Your task to perform on an android device: Search for flights from Sydney to Helsinki Image 0: 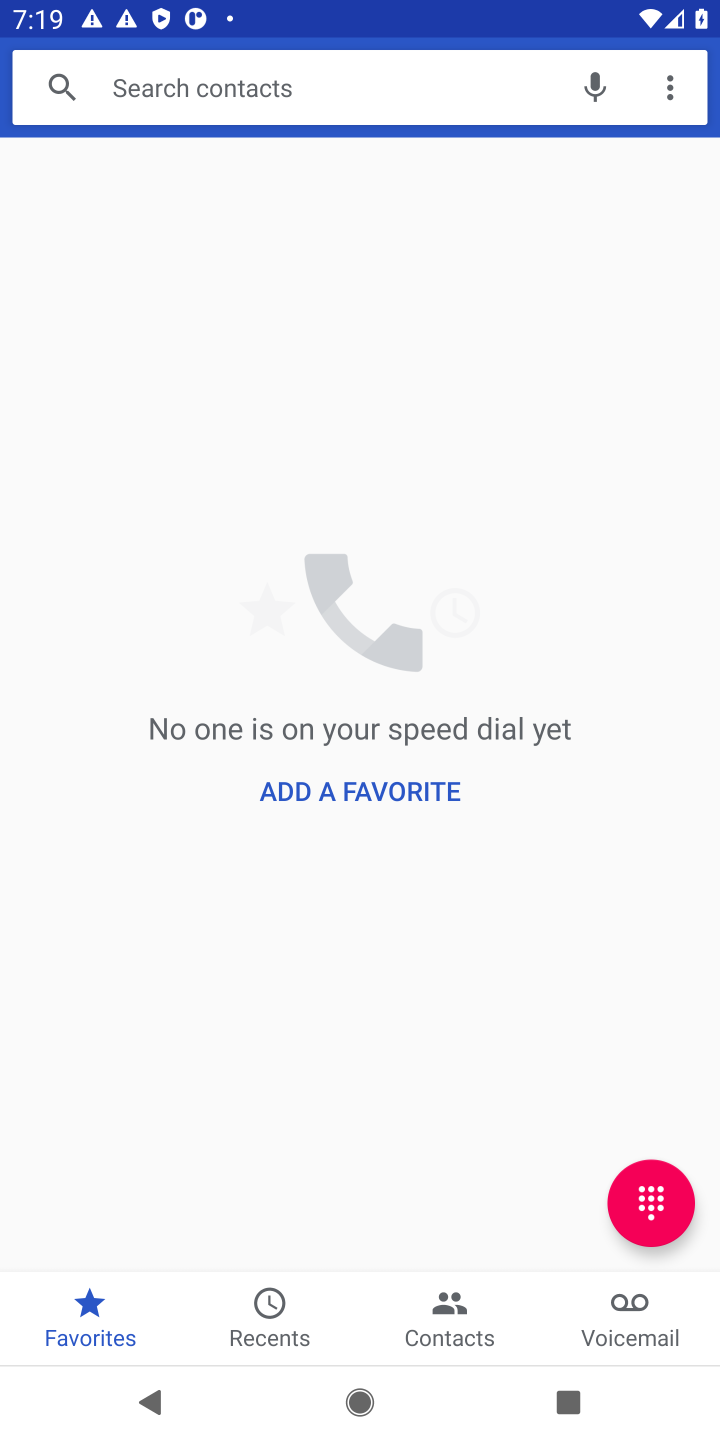
Step 0: press home button
Your task to perform on an android device: Search for flights from Sydney to Helsinki Image 1: 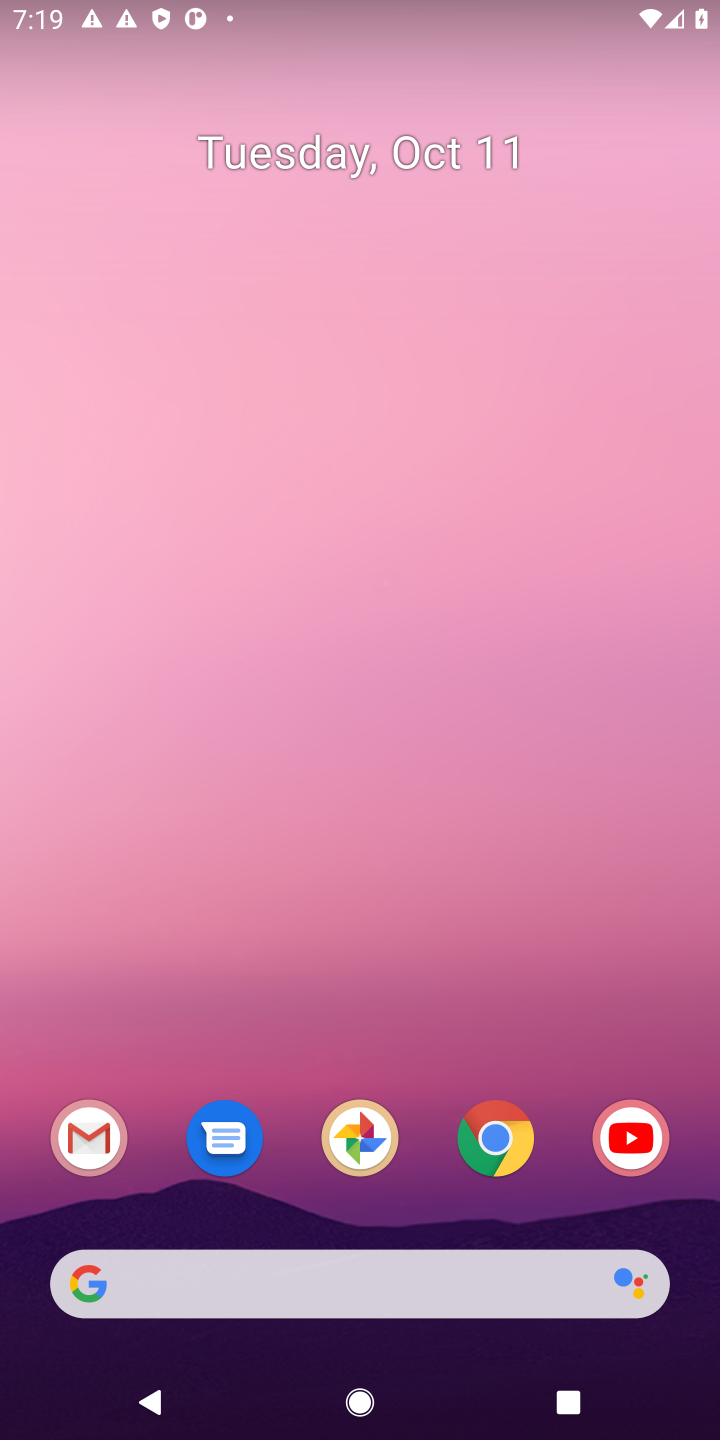
Step 1: click (277, 1285)
Your task to perform on an android device: Search for flights from Sydney to Helsinki Image 2: 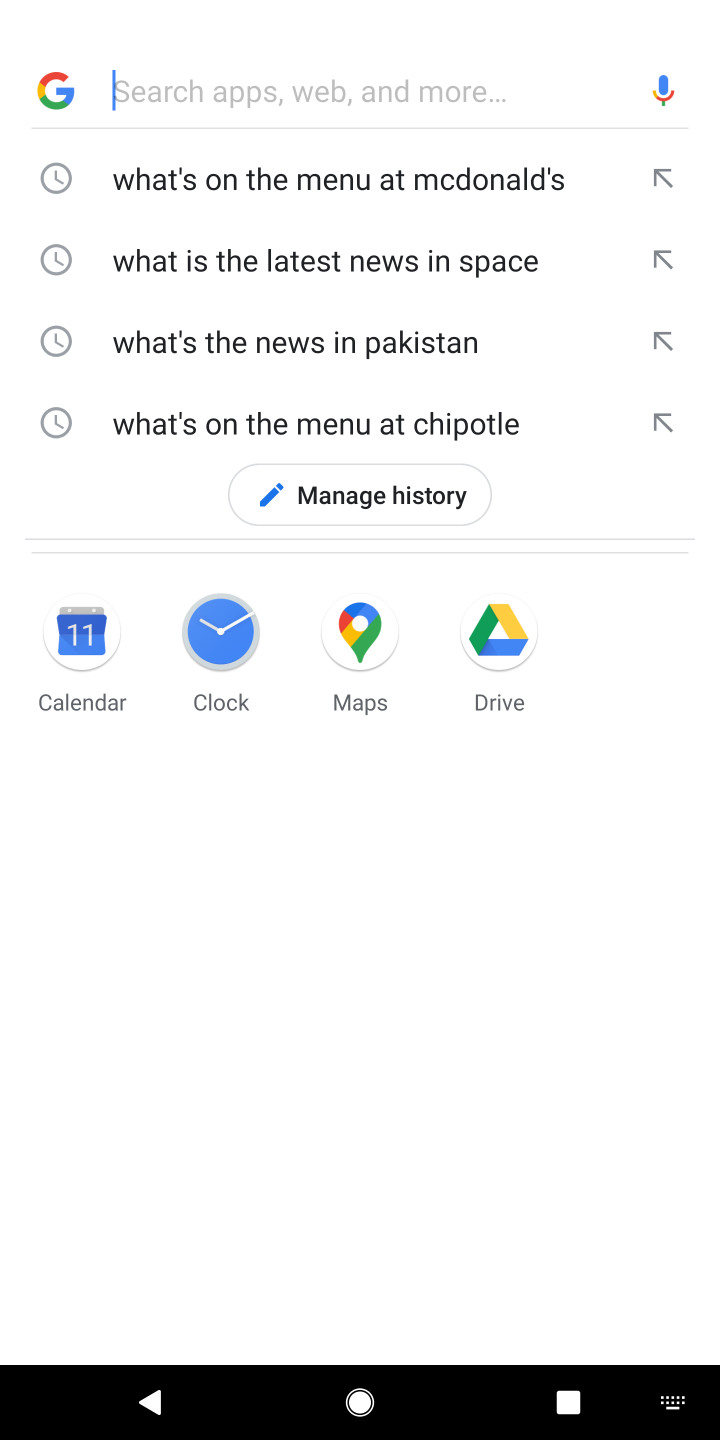
Step 2: type "Search for flights from Sydney to Helsinki"
Your task to perform on an android device: Search for flights from Sydney to Helsinki Image 3: 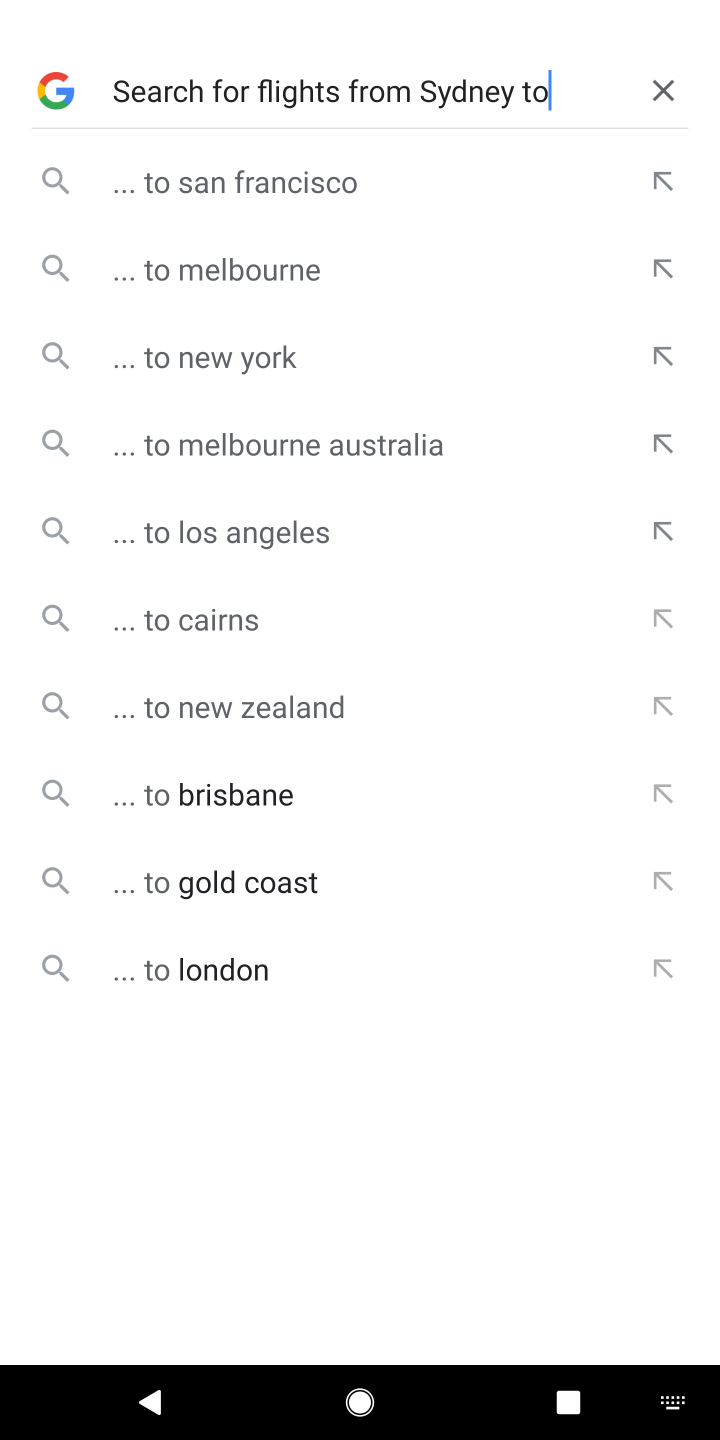
Step 3: type " helsinki"
Your task to perform on an android device: Search for flights from Sydney to Helsinki Image 4: 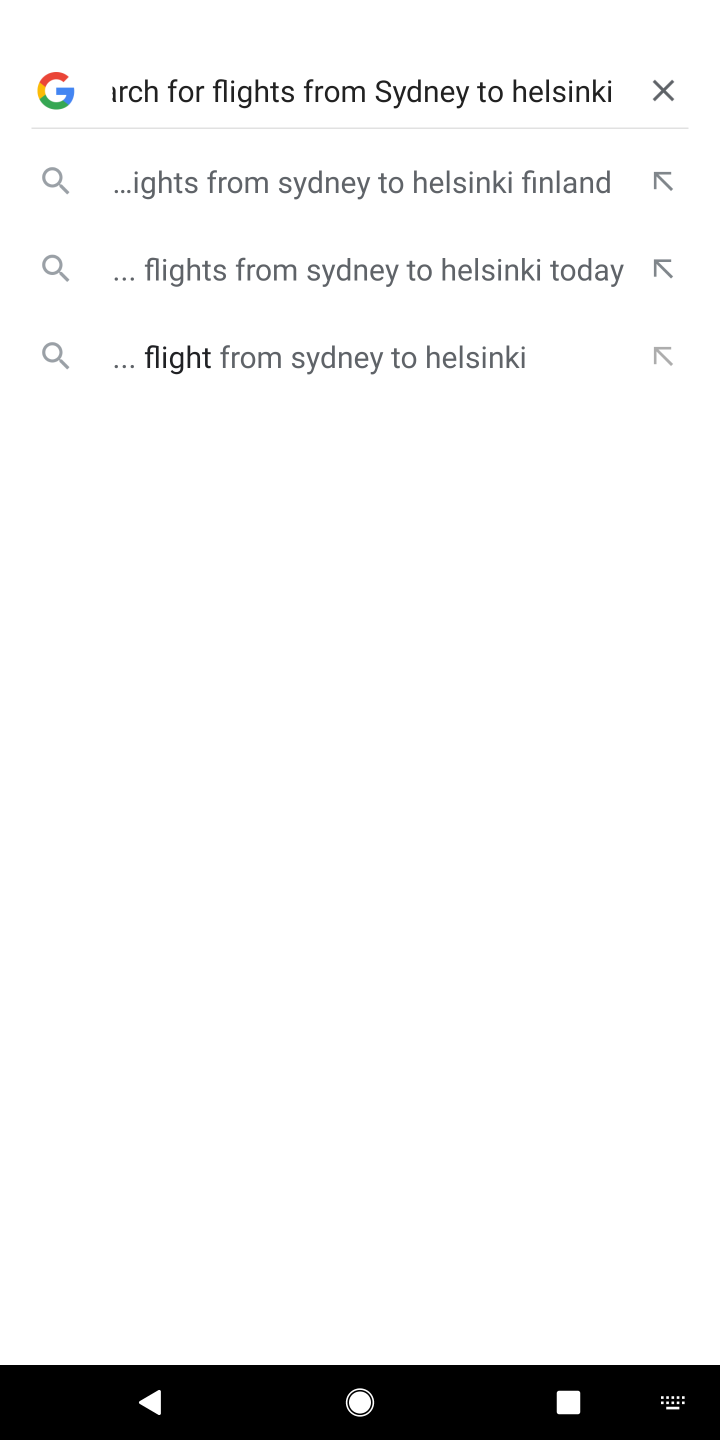
Step 4: click (410, 368)
Your task to perform on an android device: Search for flights from Sydney to Helsinki Image 5: 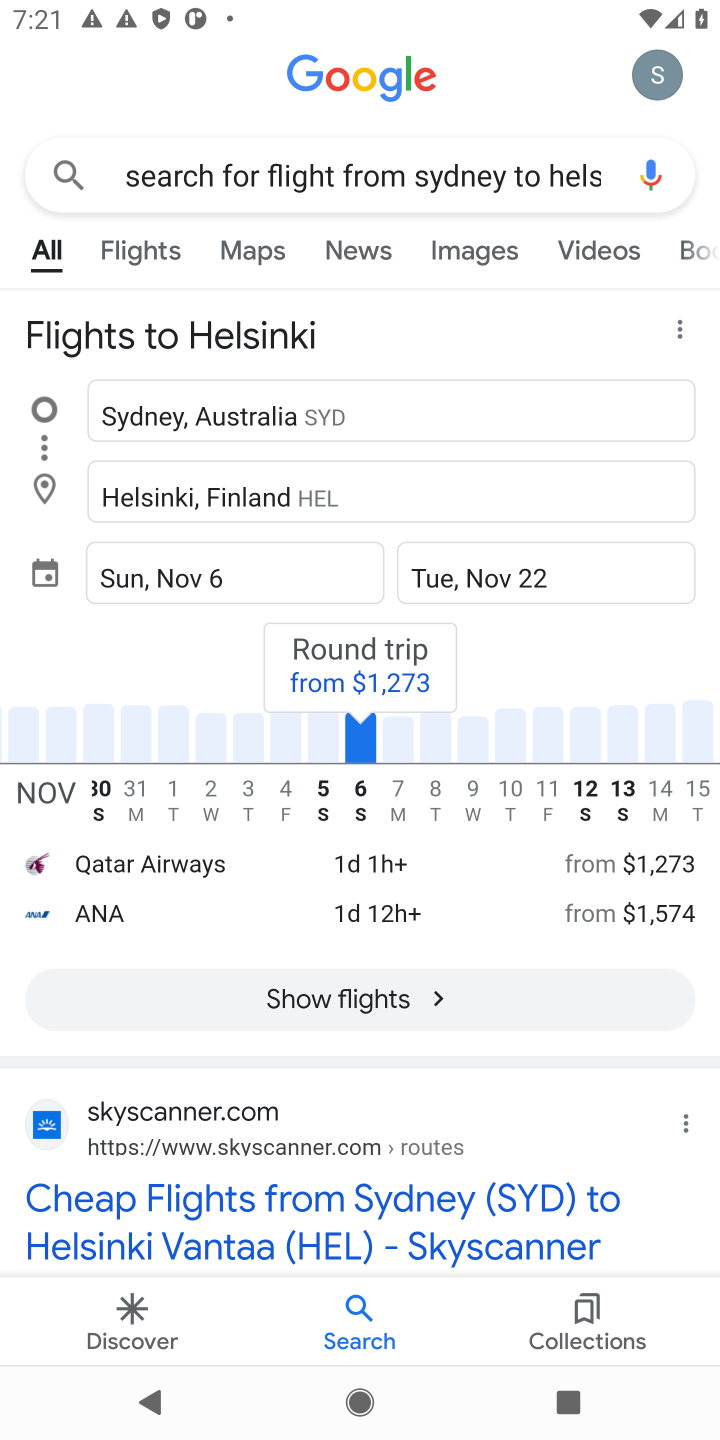
Step 5: click (417, 1005)
Your task to perform on an android device: Search for flights from Sydney to Helsinki Image 6: 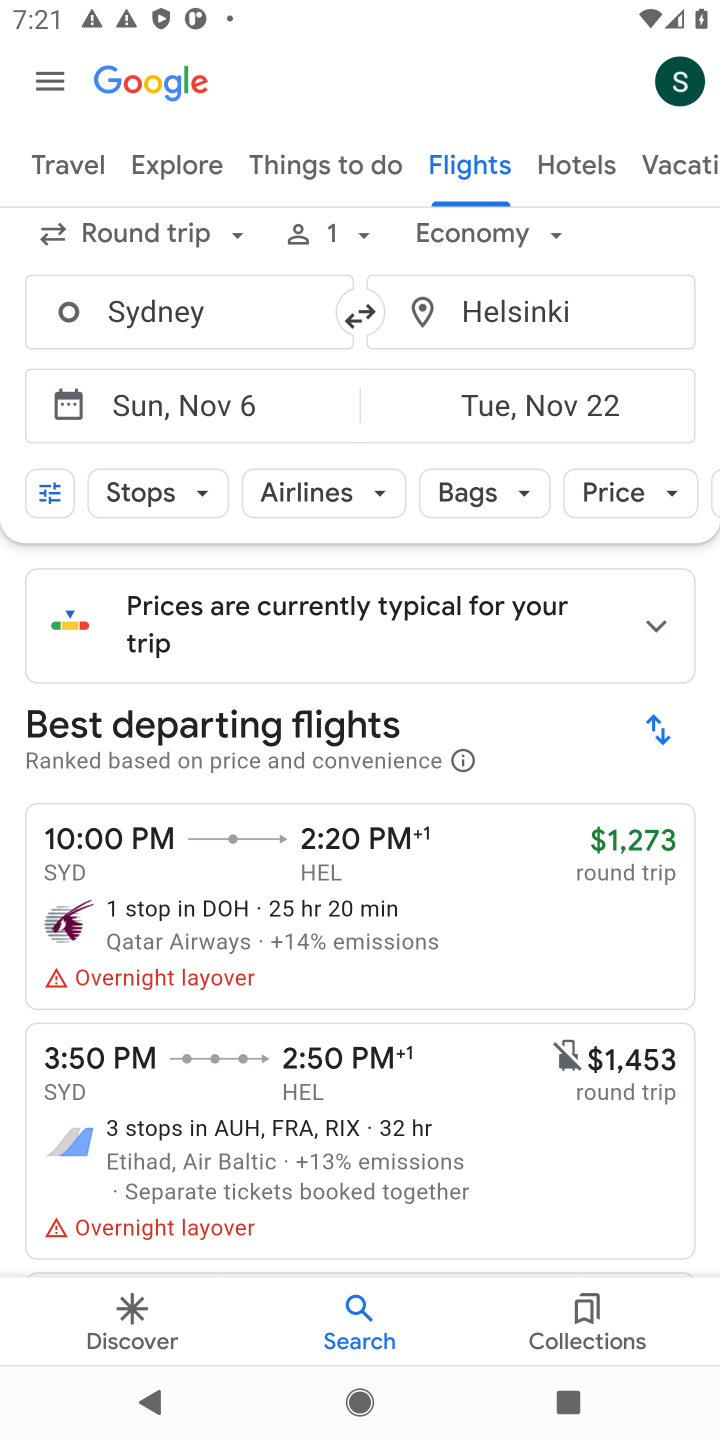
Step 6: task complete